Your task to perform on an android device: Open Youtube and go to the subscriptions tab Image 0: 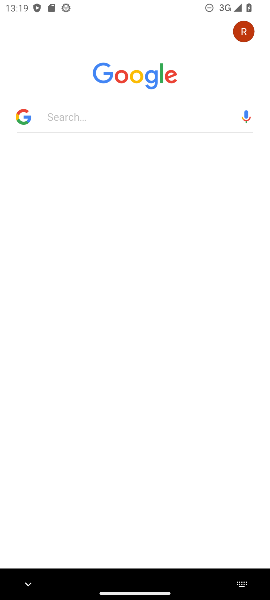
Step 0: press home button
Your task to perform on an android device: Open Youtube and go to the subscriptions tab Image 1: 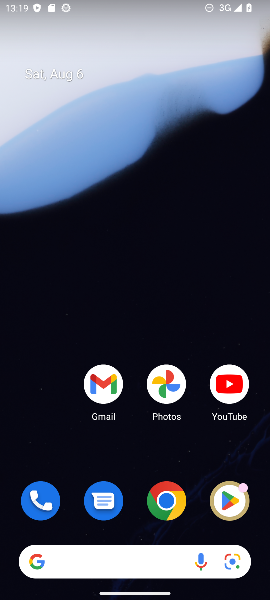
Step 1: click (229, 394)
Your task to perform on an android device: Open Youtube and go to the subscriptions tab Image 2: 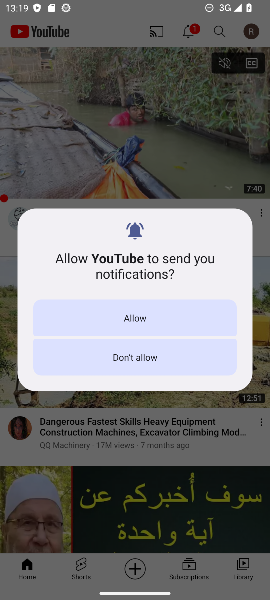
Step 2: click (135, 303)
Your task to perform on an android device: Open Youtube and go to the subscriptions tab Image 3: 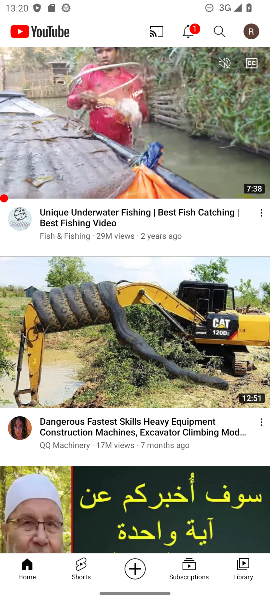
Step 3: click (190, 573)
Your task to perform on an android device: Open Youtube and go to the subscriptions tab Image 4: 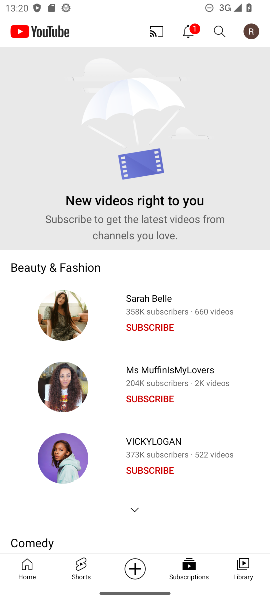
Step 4: task complete